Your task to perform on an android device: Do I have any events today? Image 0: 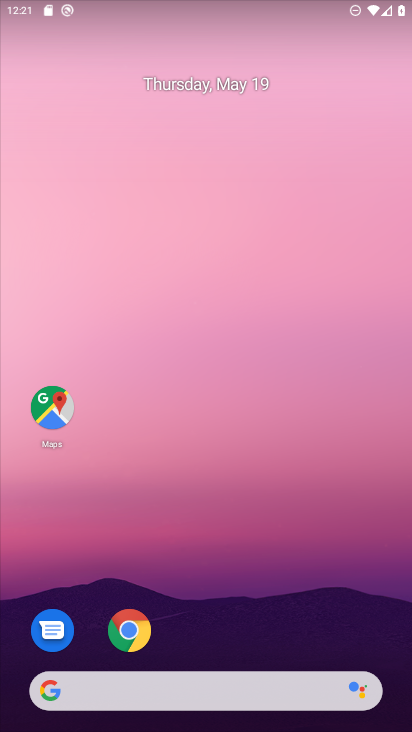
Step 0: drag from (218, 586) to (213, 10)
Your task to perform on an android device: Do I have any events today? Image 1: 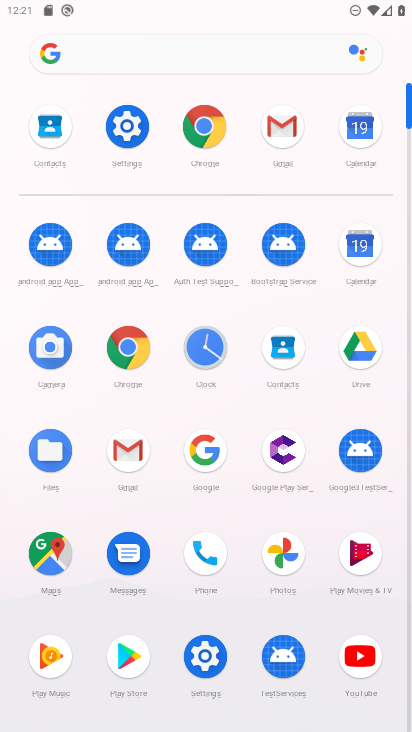
Step 1: click (356, 229)
Your task to perform on an android device: Do I have any events today? Image 2: 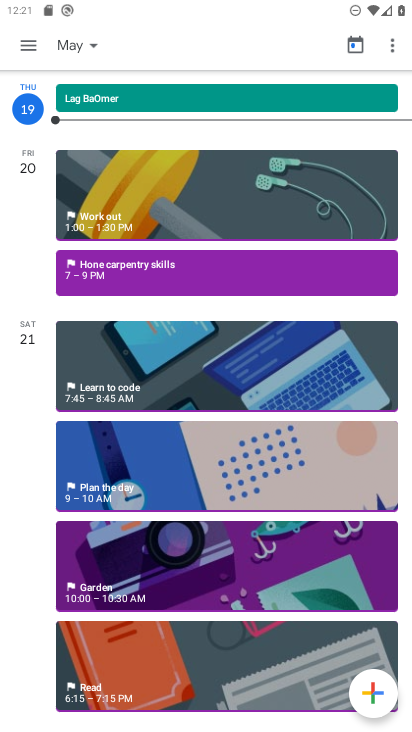
Step 2: task complete